Your task to perform on an android device: turn vacation reply on in the gmail app Image 0: 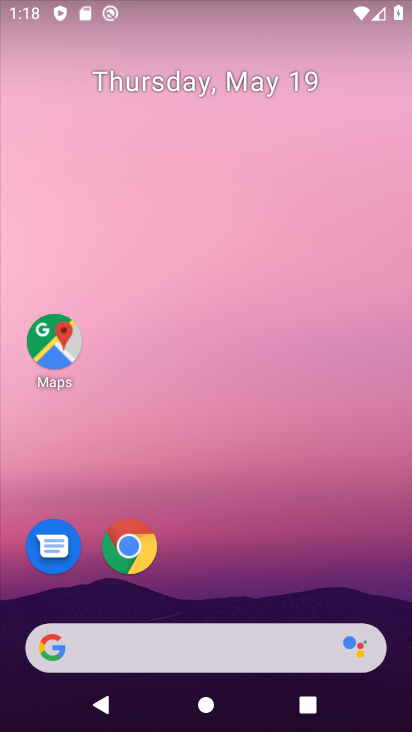
Step 0: drag from (282, 386) to (321, 247)
Your task to perform on an android device: turn vacation reply on in the gmail app Image 1: 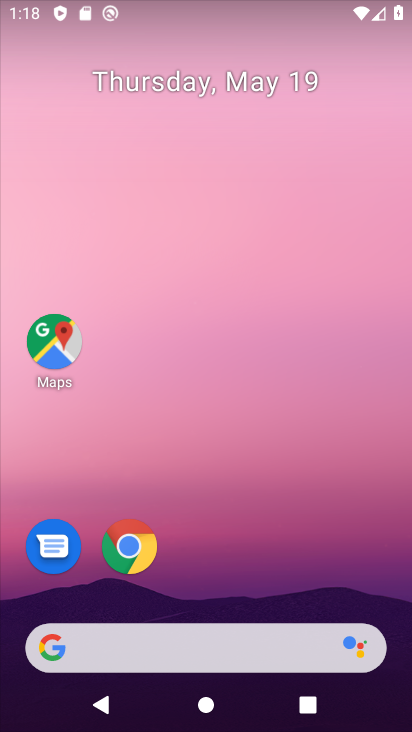
Step 1: drag from (247, 476) to (344, 77)
Your task to perform on an android device: turn vacation reply on in the gmail app Image 2: 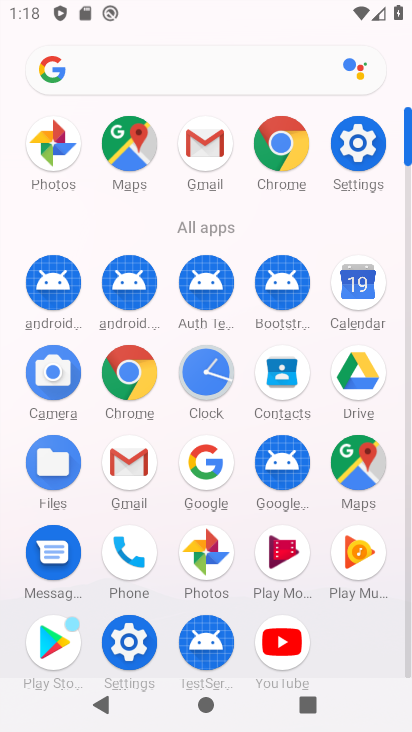
Step 2: click (129, 457)
Your task to perform on an android device: turn vacation reply on in the gmail app Image 3: 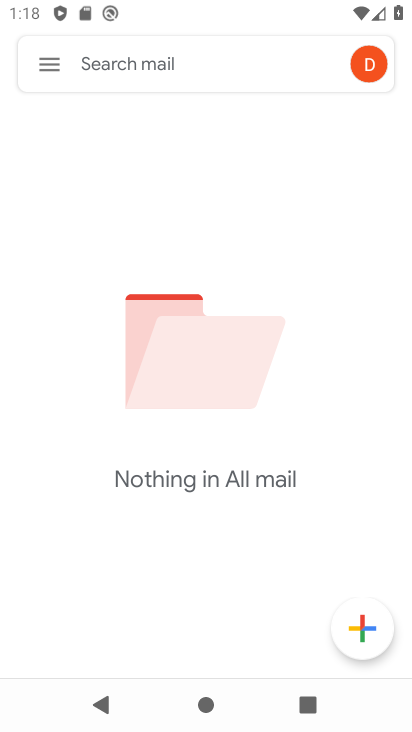
Step 3: click (59, 63)
Your task to perform on an android device: turn vacation reply on in the gmail app Image 4: 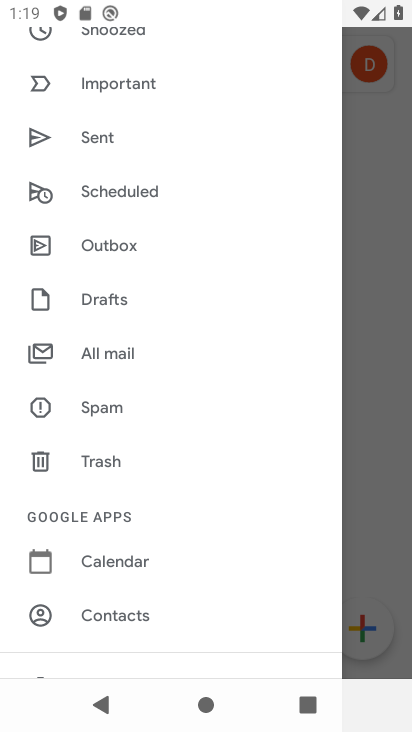
Step 4: drag from (137, 582) to (167, 225)
Your task to perform on an android device: turn vacation reply on in the gmail app Image 5: 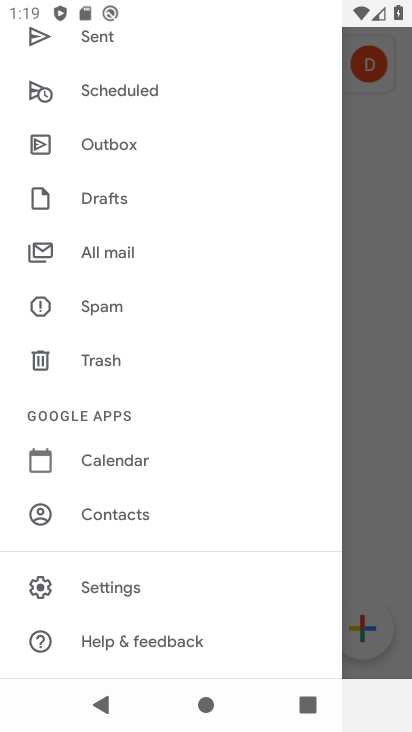
Step 5: click (128, 590)
Your task to perform on an android device: turn vacation reply on in the gmail app Image 6: 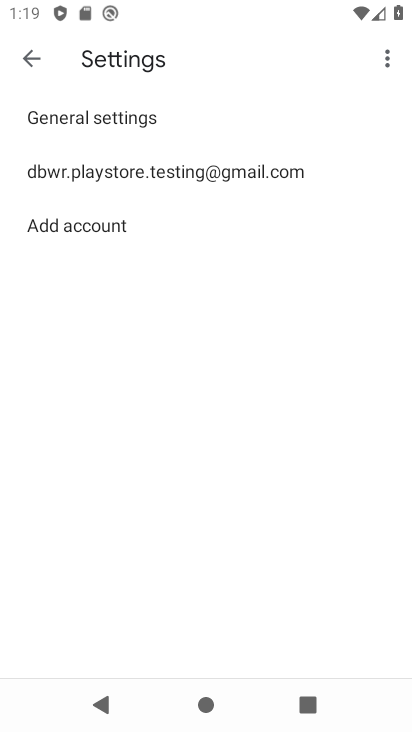
Step 6: click (129, 171)
Your task to perform on an android device: turn vacation reply on in the gmail app Image 7: 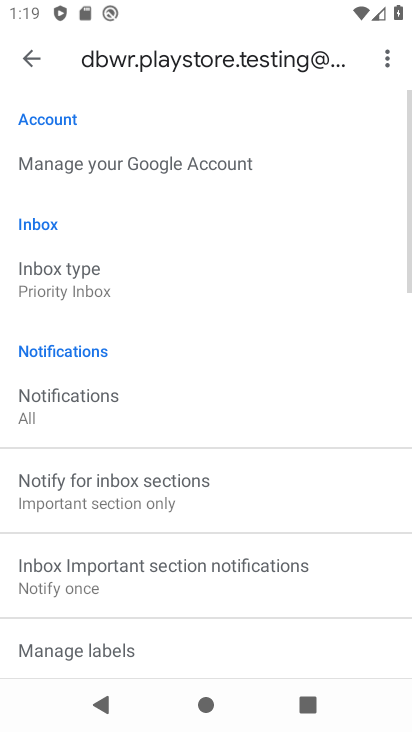
Step 7: drag from (122, 573) to (219, 255)
Your task to perform on an android device: turn vacation reply on in the gmail app Image 8: 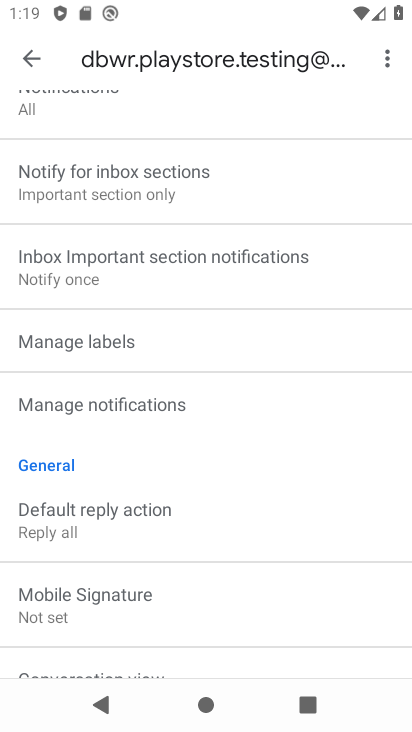
Step 8: drag from (214, 546) to (318, 267)
Your task to perform on an android device: turn vacation reply on in the gmail app Image 9: 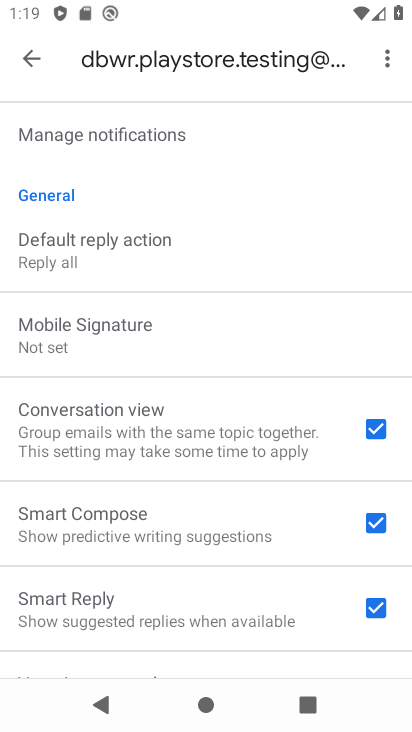
Step 9: drag from (187, 575) to (277, 361)
Your task to perform on an android device: turn vacation reply on in the gmail app Image 10: 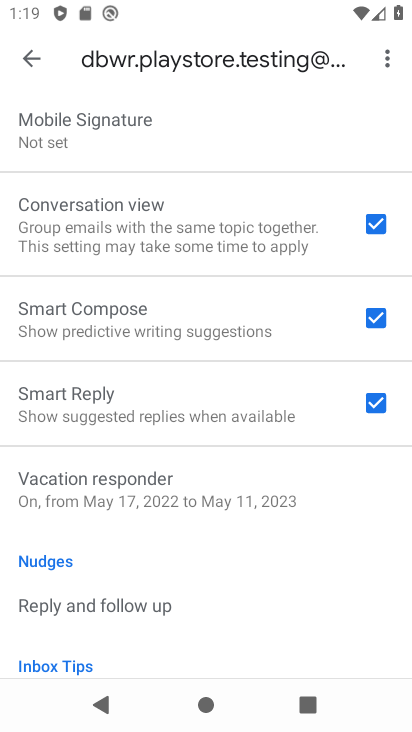
Step 10: drag from (51, 603) to (83, 440)
Your task to perform on an android device: turn vacation reply on in the gmail app Image 11: 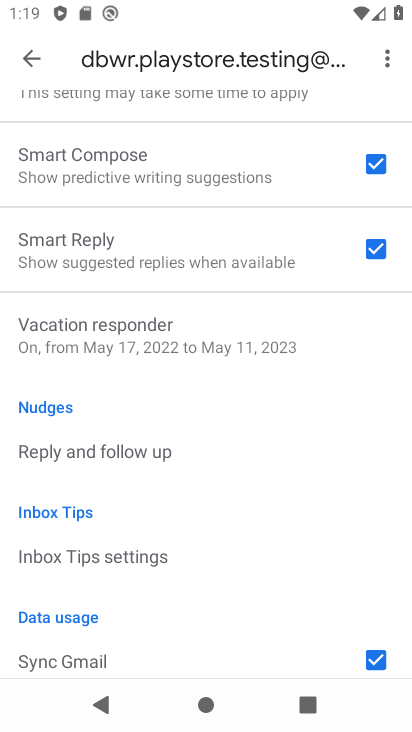
Step 11: click (92, 353)
Your task to perform on an android device: turn vacation reply on in the gmail app Image 12: 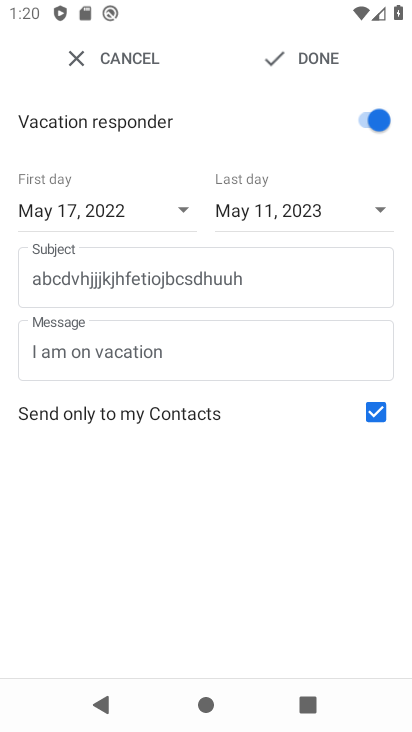
Step 12: task complete